Your task to perform on an android device: Turn off the flashlight Image 0: 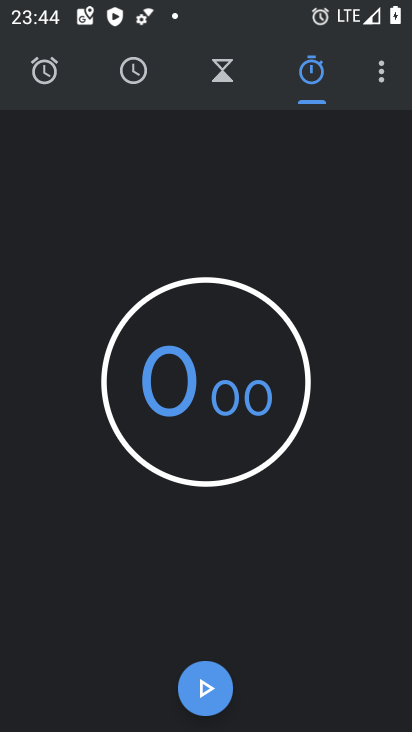
Step 0: press home button
Your task to perform on an android device: Turn off the flashlight Image 1: 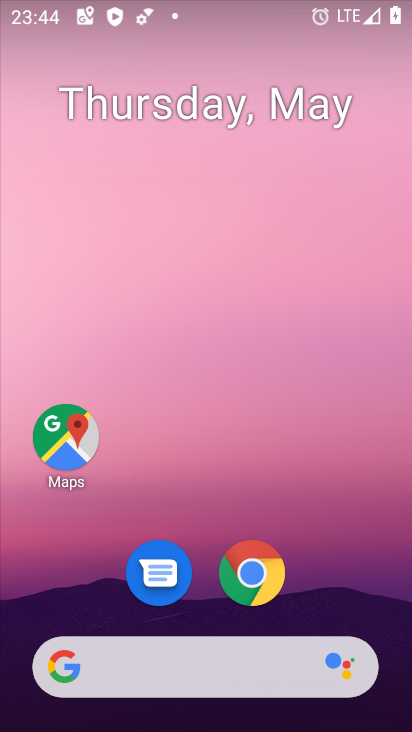
Step 1: drag from (205, 616) to (211, 196)
Your task to perform on an android device: Turn off the flashlight Image 2: 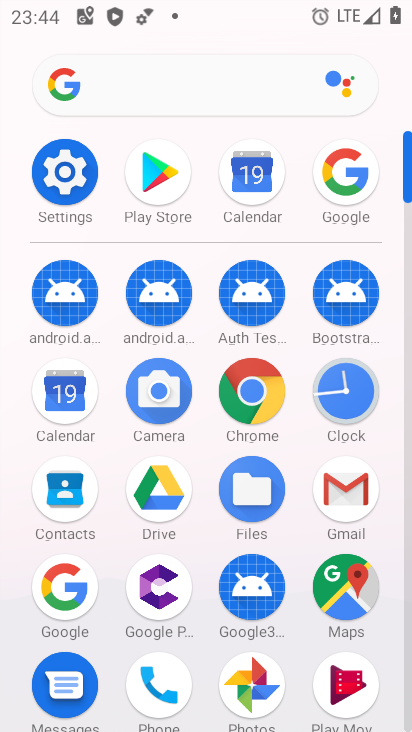
Step 2: click (57, 172)
Your task to perform on an android device: Turn off the flashlight Image 3: 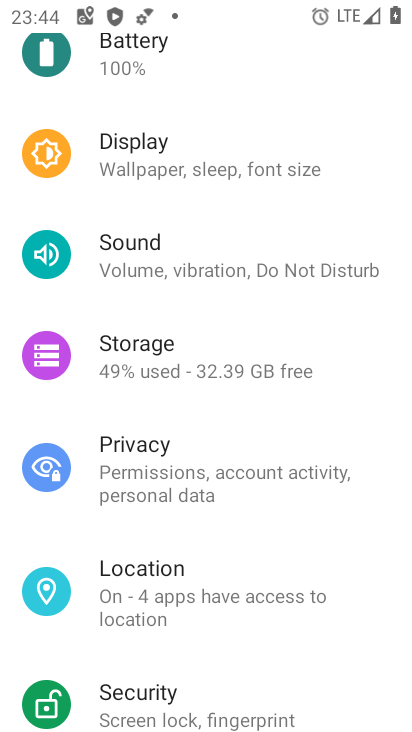
Step 3: task complete